Your task to perform on an android device: open chrome privacy settings Image 0: 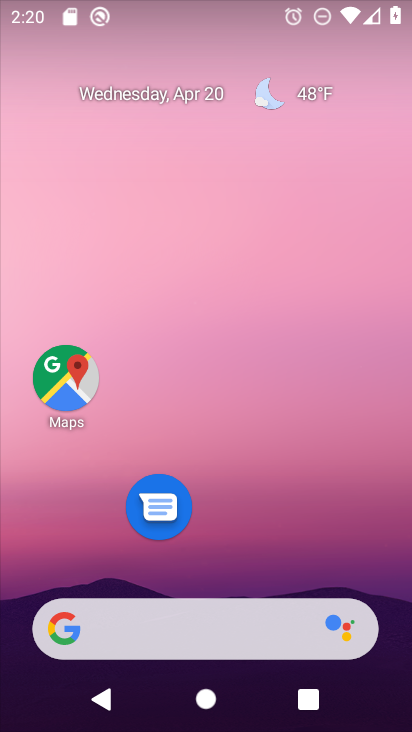
Step 0: drag from (206, 725) to (197, 73)
Your task to perform on an android device: open chrome privacy settings Image 1: 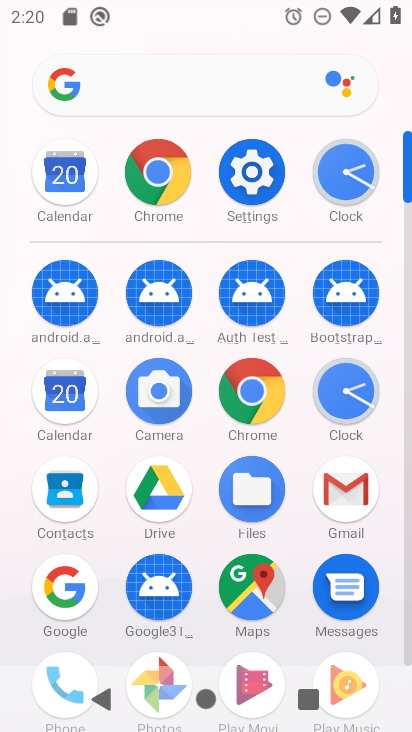
Step 1: click (157, 174)
Your task to perform on an android device: open chrome privacy settings Image 2: 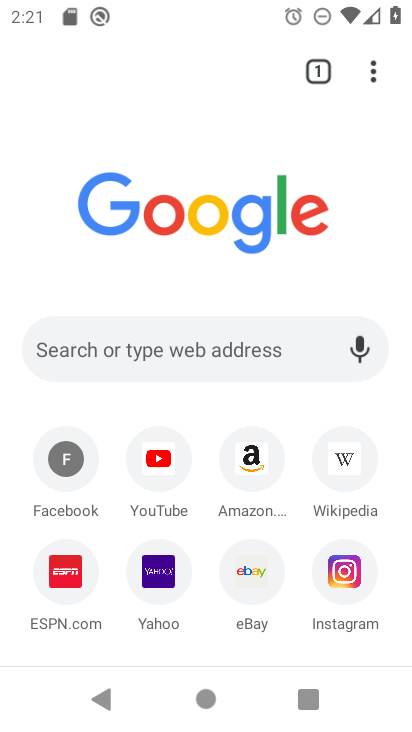
Step 2: click (371, 79)
Your task to perform on an android device: open chrome privacy settings Image 3: 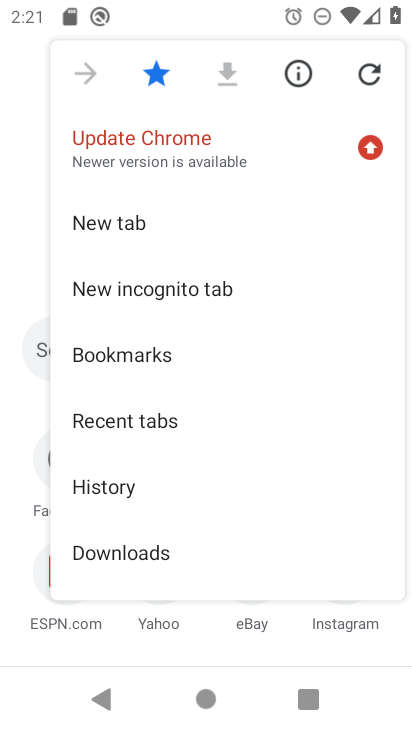
Step 3: drag from (193, 536) to (224, 171)
Your task to perform on an android device: open chrome privacy settings Image 4: 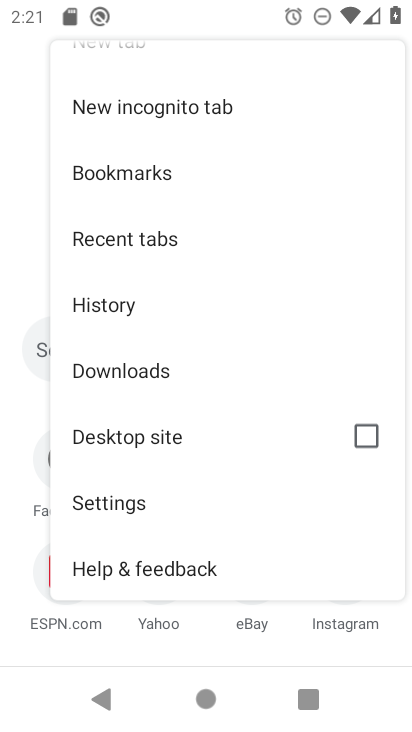
Step 4: click (121, 498)
Your task to perform on an android device: open chrome privacy settings Image 5: 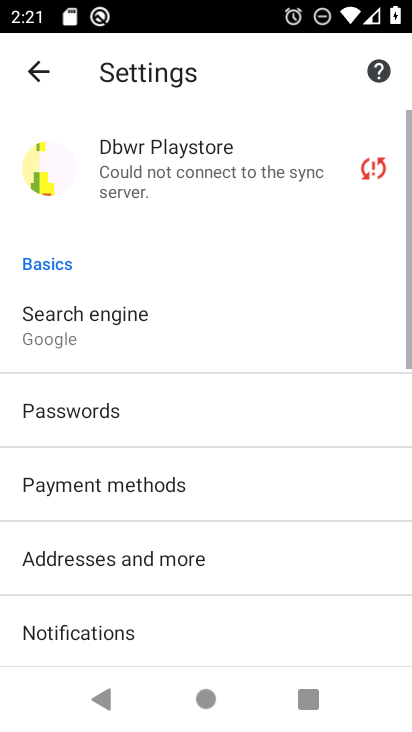
Step 5: drag from (172, 624) to (196, 262)
Your task to perform on an android device: open chrome privacy settings Image 6: 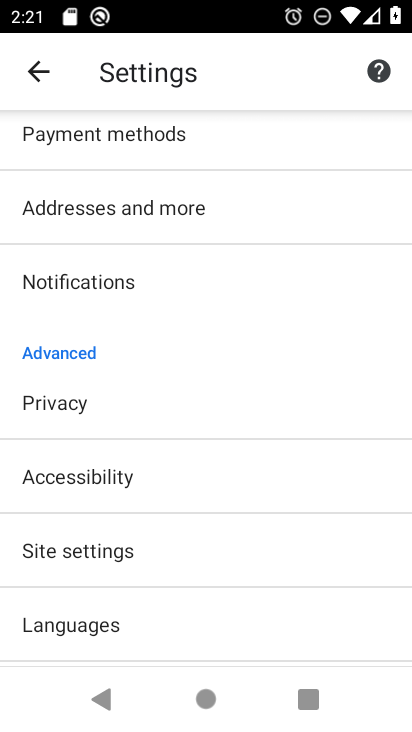
Step 6: click (60, 401)
Your task to perform on an android device: open chrome privacy settings Image 7: 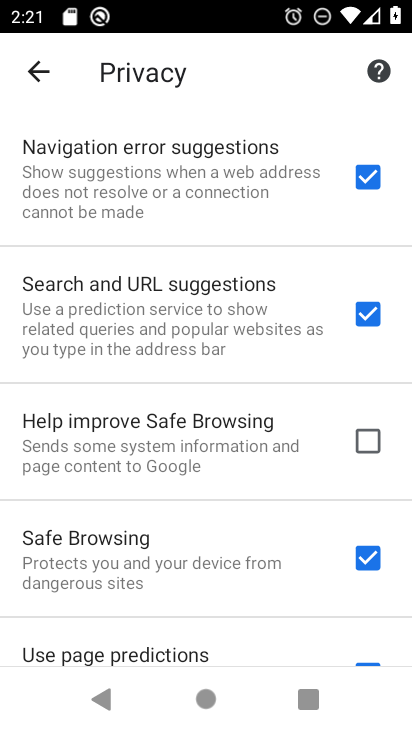
Step 7: task complete